Your task to perform on an android device: turn off airplane mode Image 0: 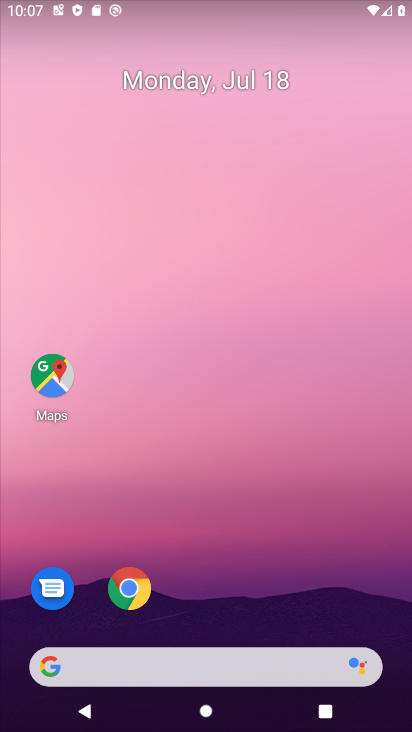
Step 0: drag from (238, 730) to (204, 80)
Your task to perform on an android device: turn off airplane mode Image 1: 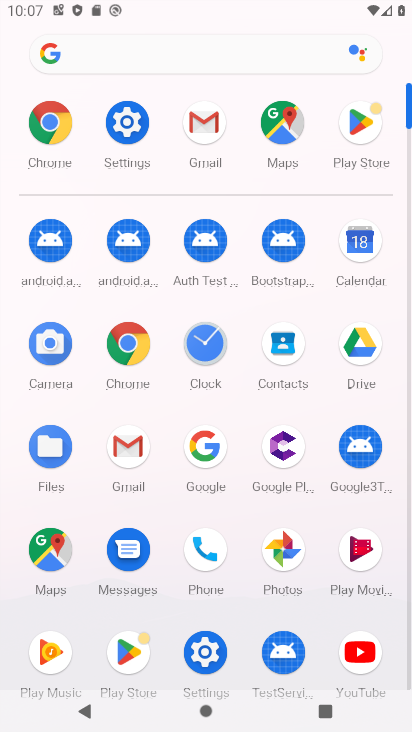
Step 1: click (125, 119)
Your task to perform on an android device: turn off airplane mode Image 2: 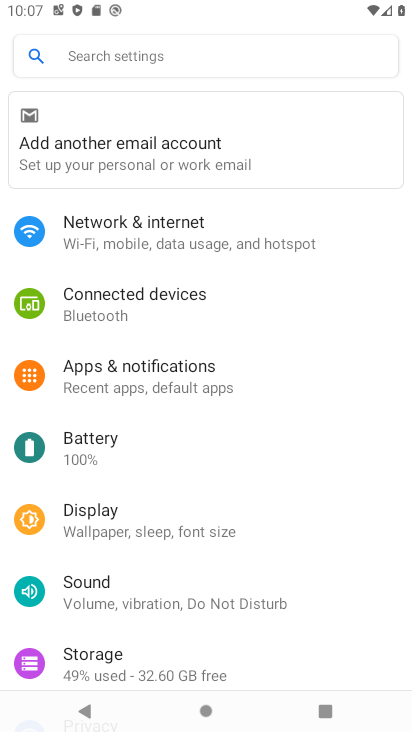
Step 2: click (145, 237)
Your task to perform on an android device: turn off airplane mode Image 3: 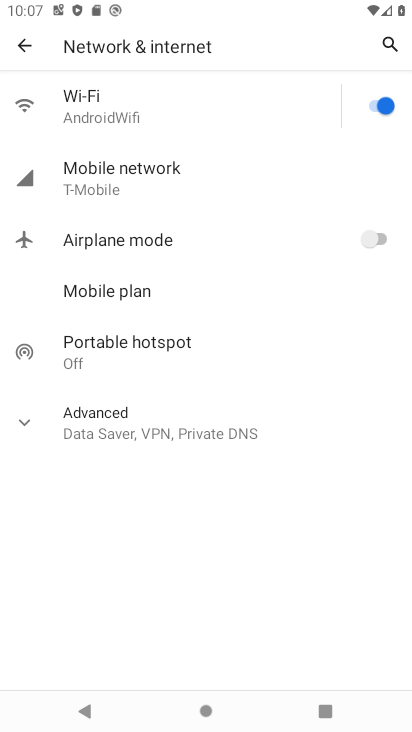
Step 3: task complete